Your task to perform on an android device: turn off javascript in the chrome app Image 0: 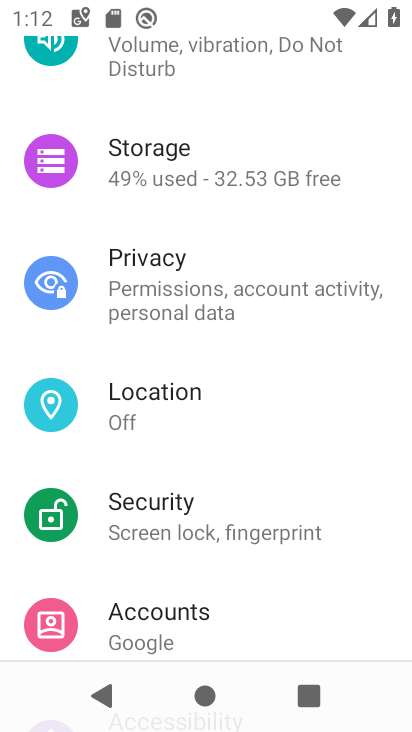
Step 0: press home button
Your task to perform on an android device: turn off javascript in the chrome app Image 1: 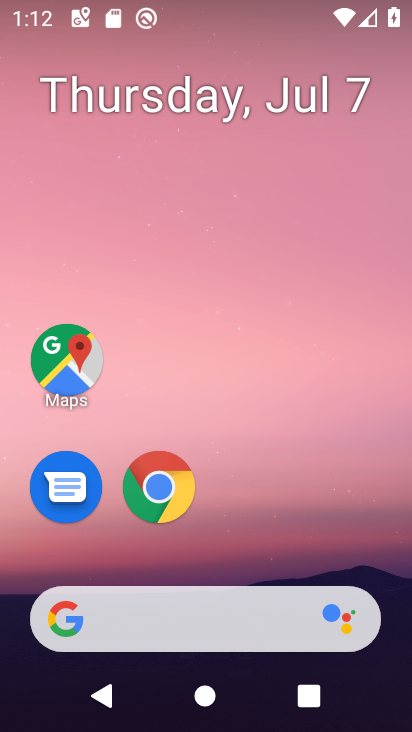
Step 1: drag from (373, 502) to (366, 104)
Your task to perform on an android device: turn off javascript in the chrome app Image 2: 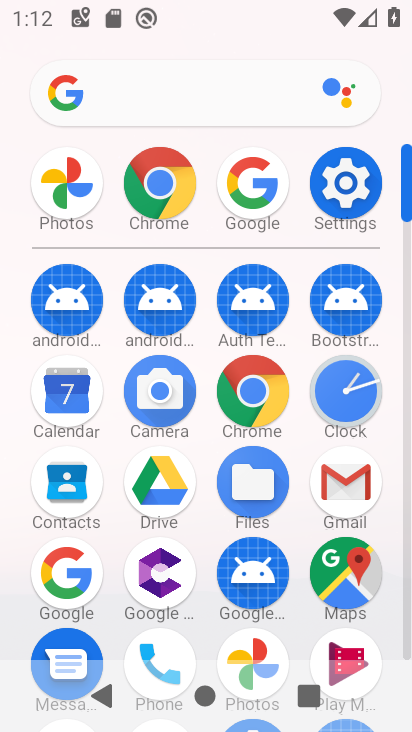
Step 2: click (255, 387)
Your task to perform on an android device: turn off javascript in the chrome app Image 3: 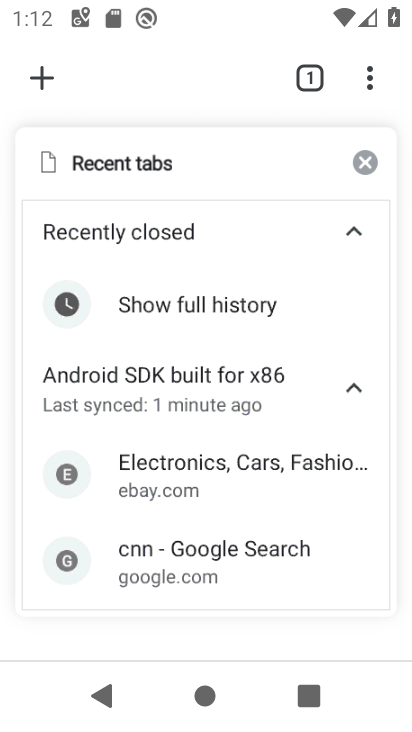
Step 3: click (367, 88)
Your task to perform on an android device: turn off javascript in the chrome app Image 4: 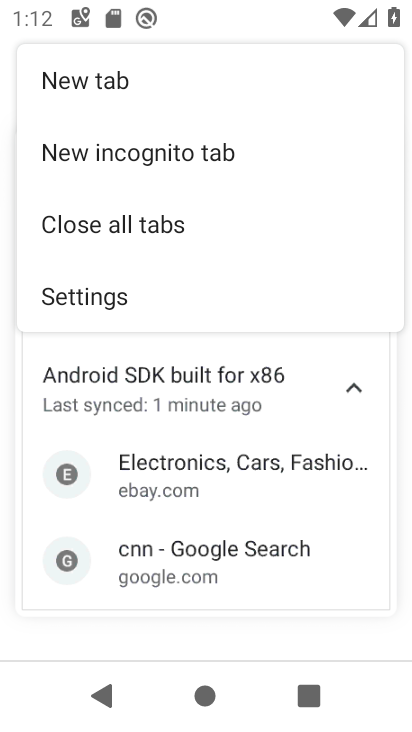
Step 4: click (187, 302)
Your task to perform on an android device: turn off javascript in the chrome app Image 5: 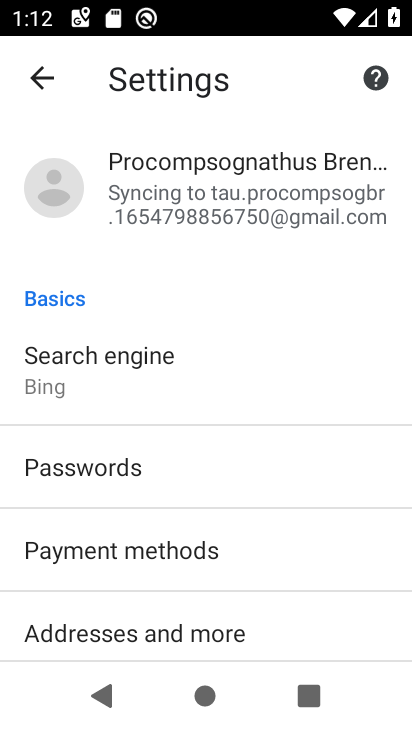
Step 5: drag from (346, 534) to (358, 398)
Your task to perform on an android device: turn off javascript in the chrome app Image 6: 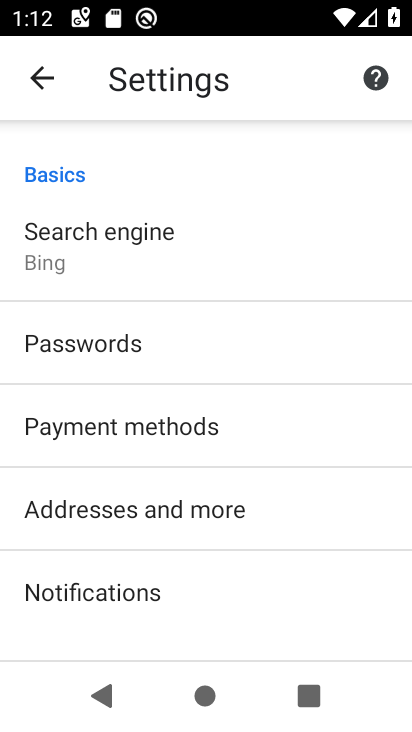
Step 6: drag from (333, 580) to (330, 449)
Your task to perform on an android device: turn off javascript in the chrome app Image 7: 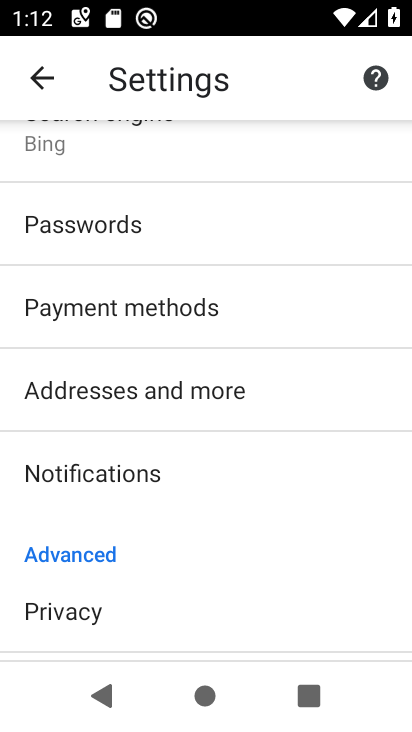
Step 7: drag from (331, 584) to (341, 454)
Your task to perform on an android device: turn off javascript in the chrome app Image 8: 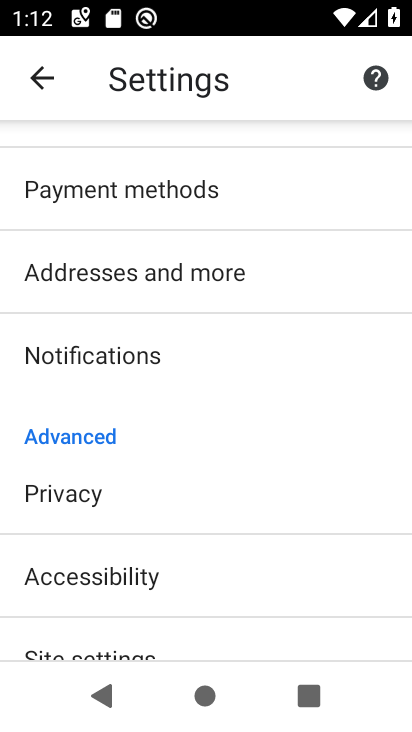
Step 8: drag from (324, 585) to (326, 498)
Your task to perform on an android device: turn off javascript in the chrome app Image 9: 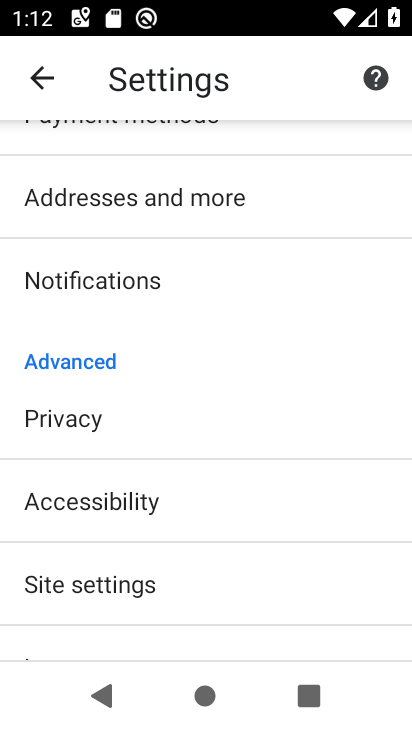
Step 9: drag from (309, 595) to (306, 461)
Your task to perform on an android device: turn off javascript in the chrome app Image 10: 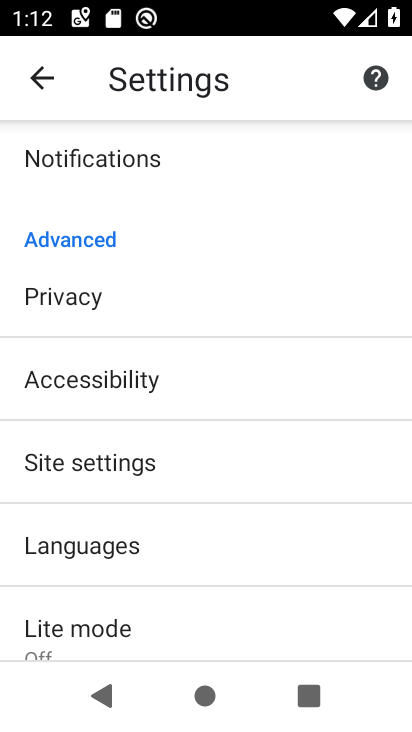
Step 10: click (213, 478)
Your task to perform on an android device: turn off javascript in the chrome app Image 11: 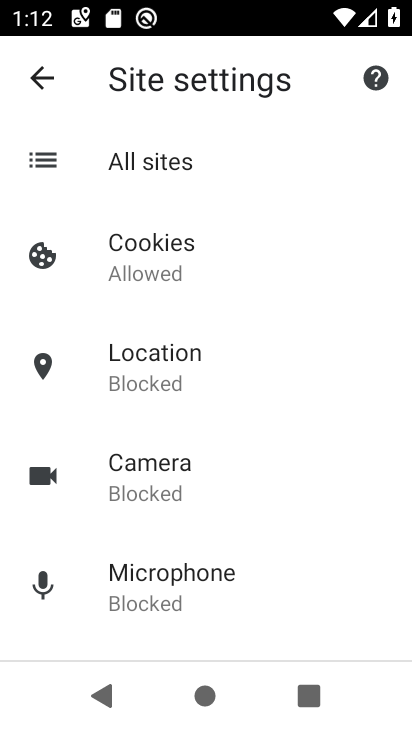
Step 11: drag from (320, 289) to (342, 442)
Your task to perform on an android device: turn off javascript in the chrome app Image 12: 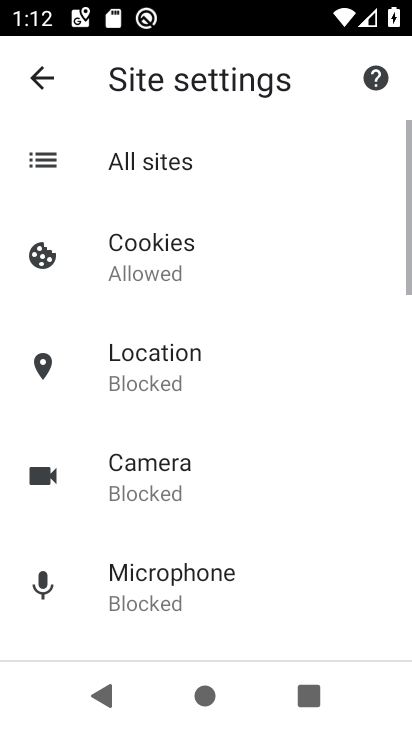
Step 12: drag from (336, 561) to (337, 422)
Your task to perform on an android device: turn off javascript in the chrome app Image 13: 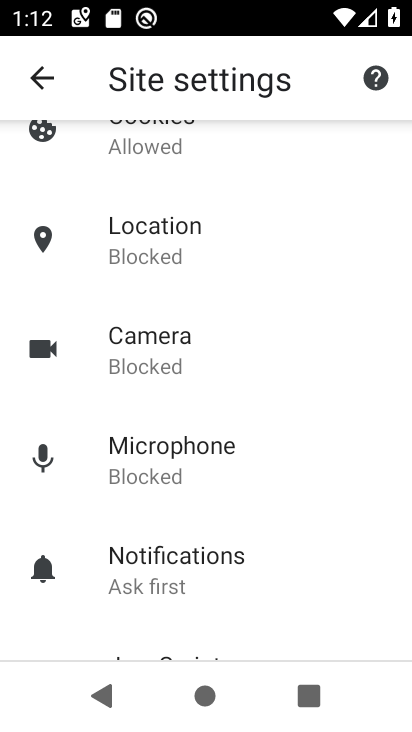
Step 13: drag from (327, 570) to (318, 422)
Your task to perform on an android device: turn off javascript in the chrome app Image 14: 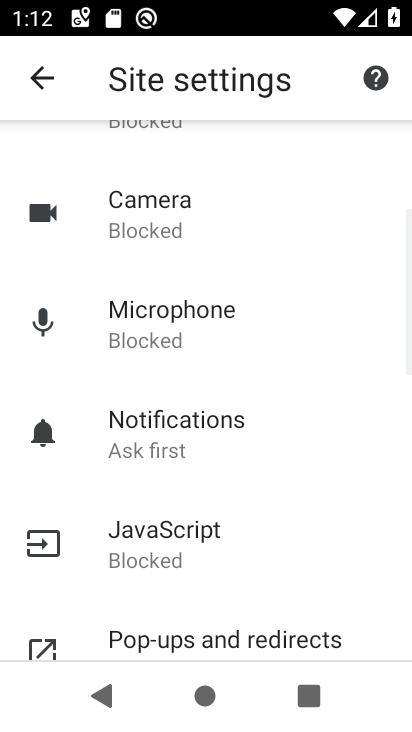
Step 14: drag from (311, 543) to (308, 450)
Your task to perform on an android device: turn off javascript in the chrome app Image 15: 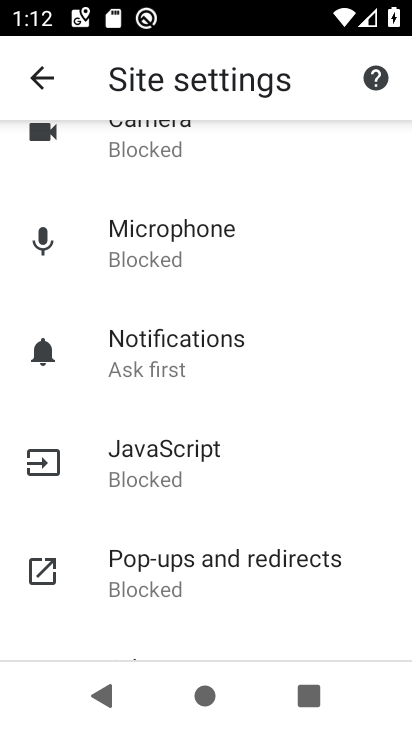
Step 15: drag from (303, 619) to (304, 480)
Your task to perform on an android device: turn off javascript in the chrome app Image 16: 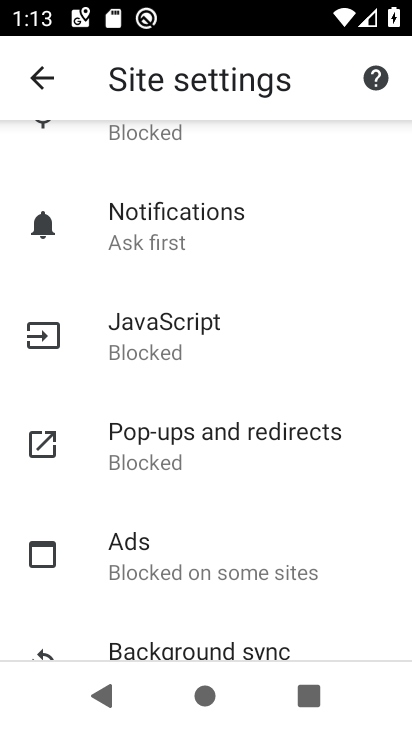
Step 16: click (207, 354)
Your task to perform on an android device: turn off javascript in the chrome app Image 17: 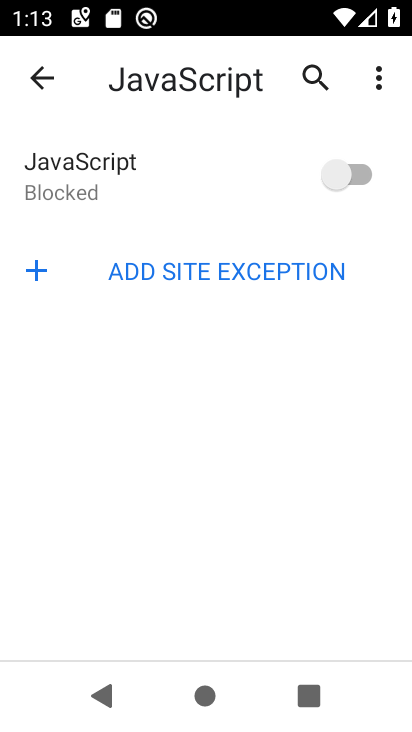
Step 17: task complete